Your task to perform on an android device: Open sound settings Image 0: 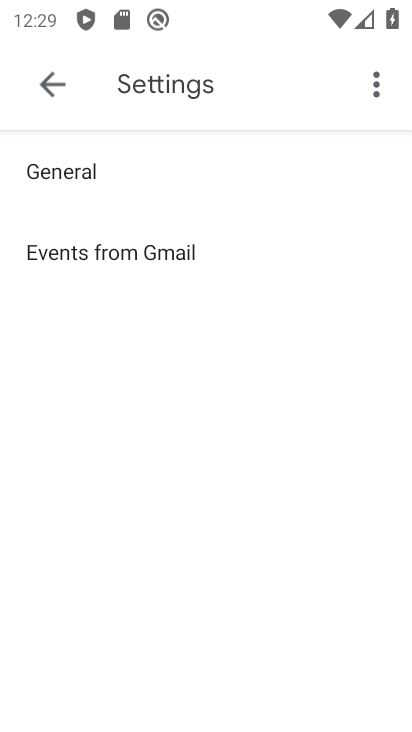
Step 0: press home button
Your task to perform on an android device: Open sound settings Image 1: 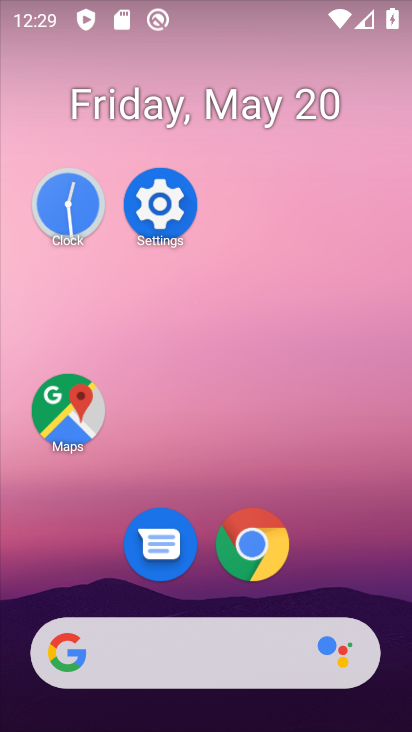
Step 1: click (163, 205)
Your task to perform on an android device: Open sound settings Image 2: 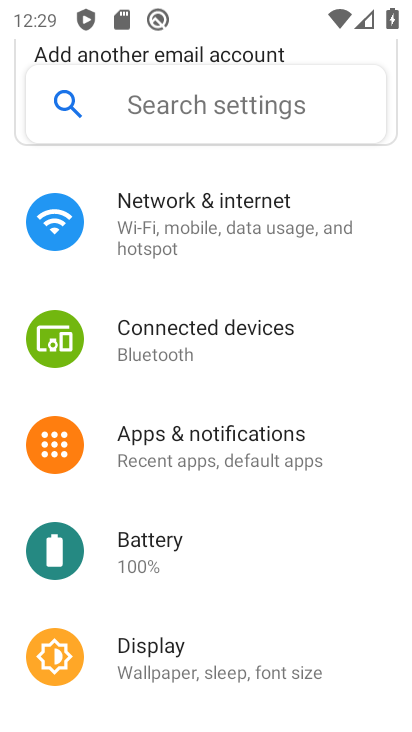
Step 2: drag from (257, 549) to (239, 166)
Your task to perform on an android device: Open sound settings Image 3: 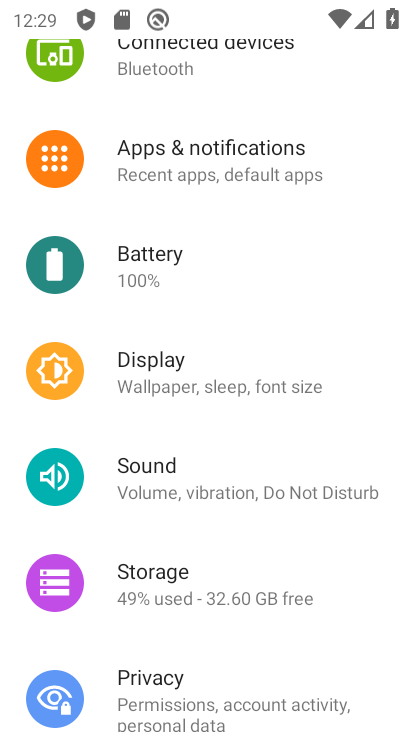
Step 3: click (228, 474)
Your task to perform on an android device: Open sound settings Image 4: 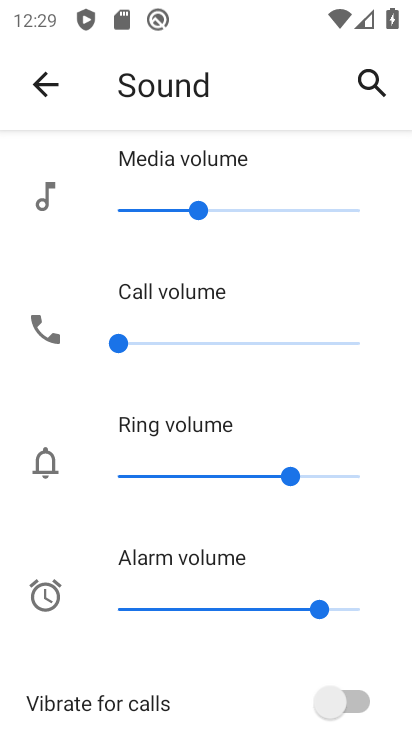
Step 4: task complete